Your task to perform on an android device: remove spam from my inbox in the gmail app Image 0: 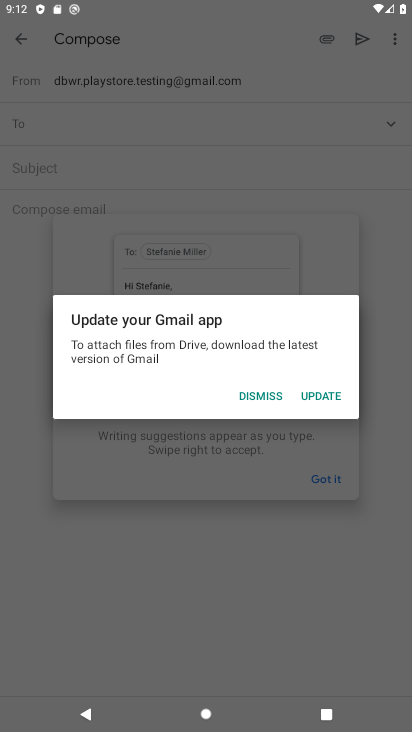
Step 0: press home button
Your task to perform on an android device: remove spam from my inbox in the gmail app Image 1: 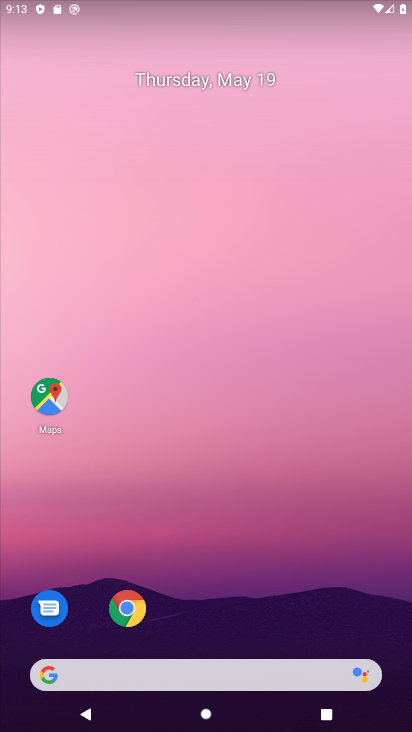
Step 1: drag from (197, 622) to (197, 176)
Your task to perform on an android device: remove spam from my inbox in the gmail app Image 2: 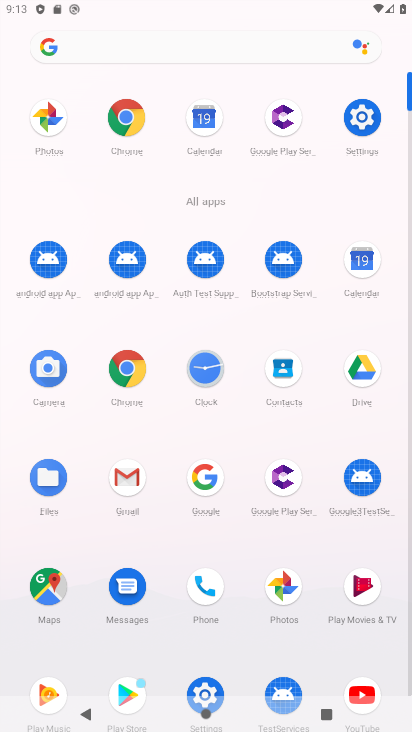
Step 2: click (122, 482)
Your task to perform on an android device: remove spam from my inbox in the gmail app Image 3: 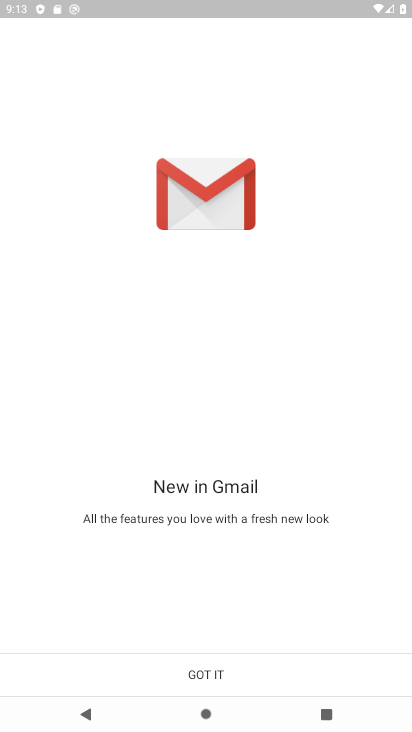
Step 3: click (216, 677)
Your task to perform on an android device: remove spam from my inbox in the gmail app Image 4: 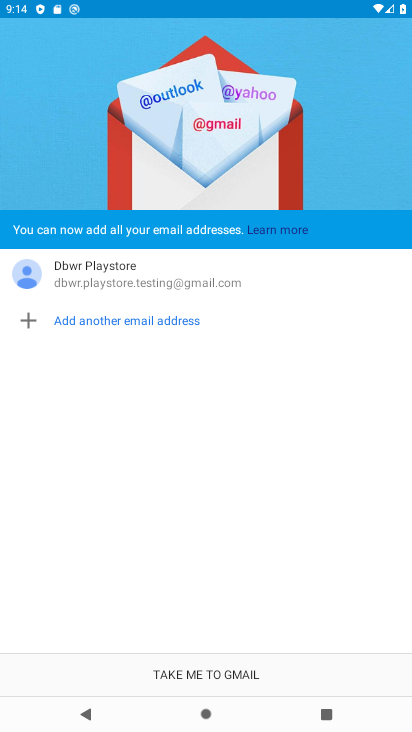
Step 4: click (213, 688)
Your task to perform on an android device: remove spam from my inbox in the gmail app Image 5: 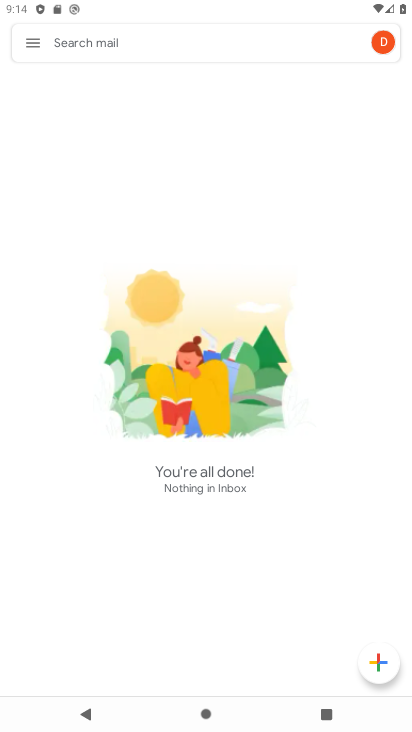
Step 5: click (34, 44)
Your task to perform on an android device: remove spam from my inbox in the gmail app Image 6: 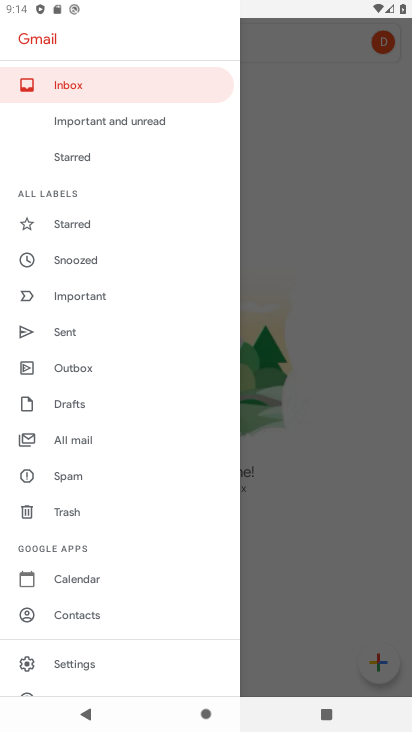
Step 6: click (82, 470)
Your task to perform on an android device: remove spam from my inbox in the gmail app Image 7: 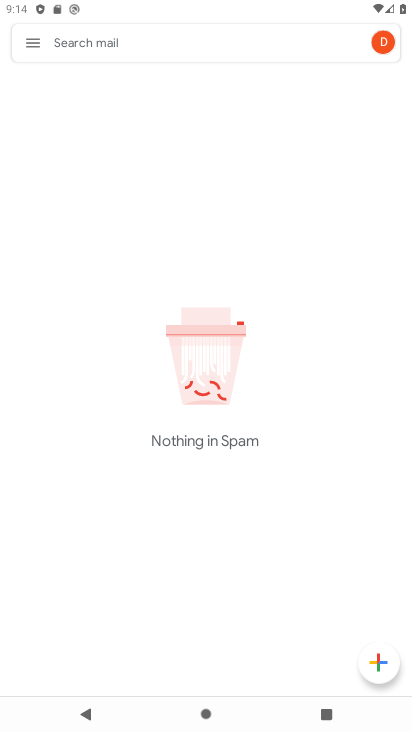
Step 7: task complete